Your task to perform on an android device: Open calendar and show me the first week of next month Image 0: 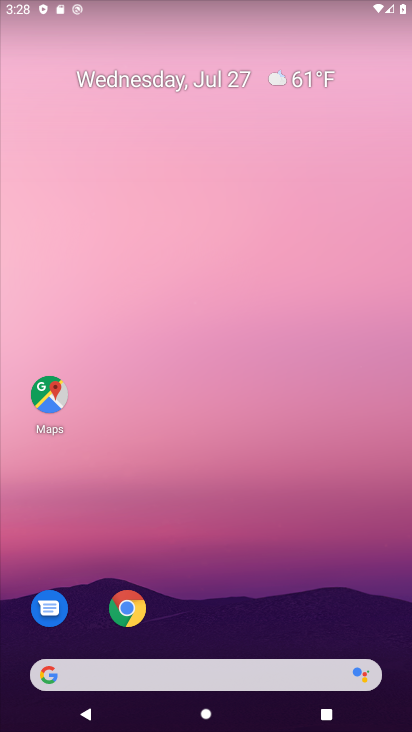
Step 0: drag from (235, 726) to (235, 233)
Your task to perform on an android device: Open calendar and show me the first week of next month Image 1: 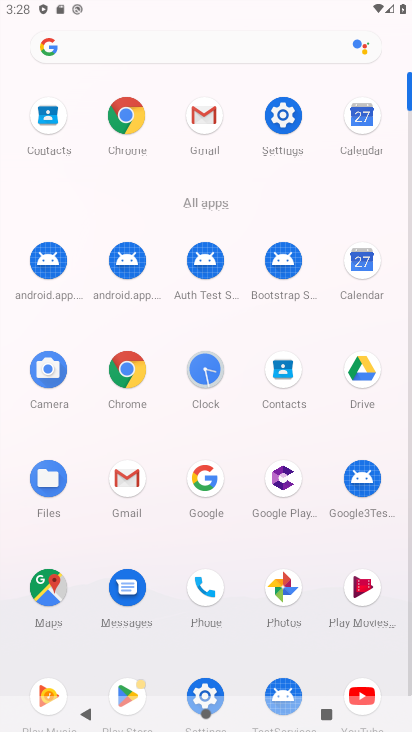
Step 1: click (355, 266)
Your task to perform on an android device: Open calendar and show me the first week of next month Image 2: 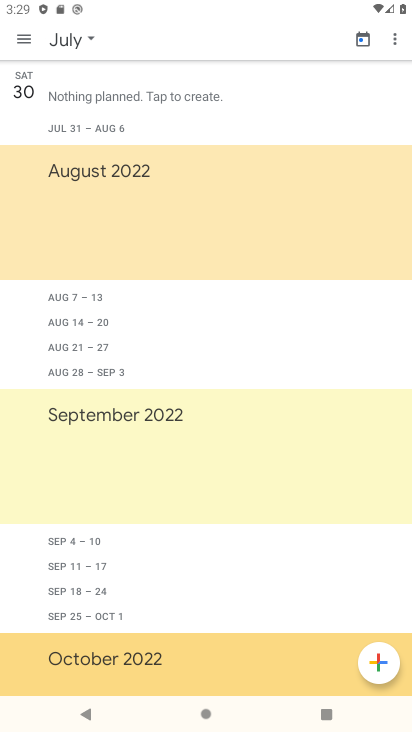
Step 2: click (93, 38)
Your task to perform on an android device: Open calendar and show me the first week of next month Image 3: 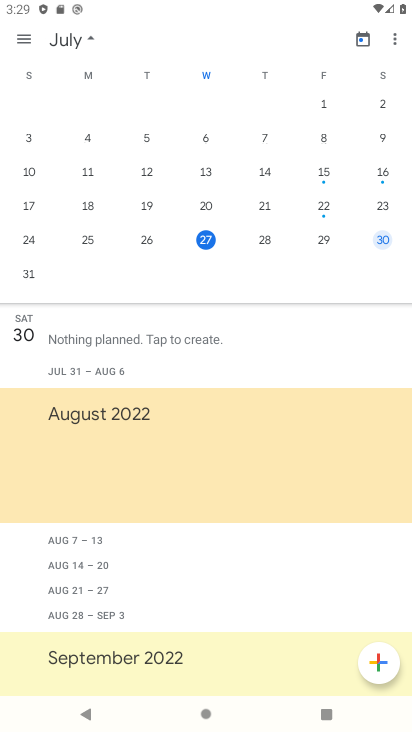
Step 3: drag from (341, 203) to (109, 203)
Your task to perform on an android device: Open calendar and show me the first week of next month Image 4: 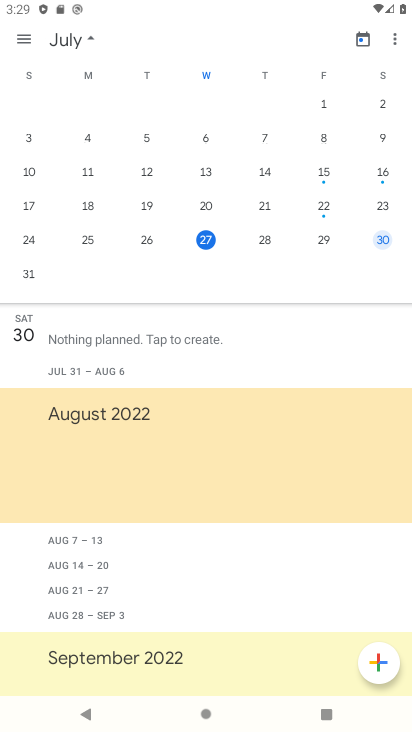
Step 4: drag from (365, 192) to (39, 192)
Your task to perform on an android device: Open calendar and show me the first week of next month Image 5: 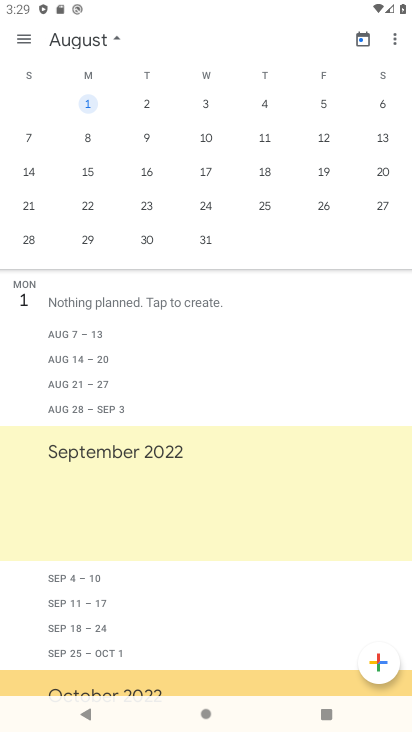
Step 5: click (92, 103)
Your task to perform on an android device: Open calendar and show me the first week of next month Image 6: 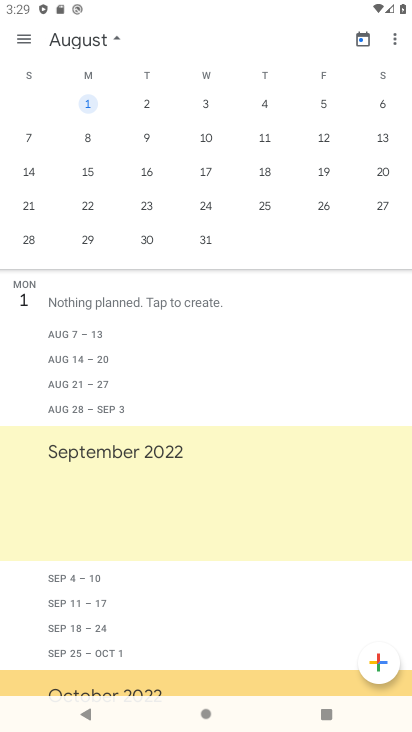
Step 6: click (20, 40)
Your task to perform on an android device: Open calendar and show me the first week of next month Image 7: 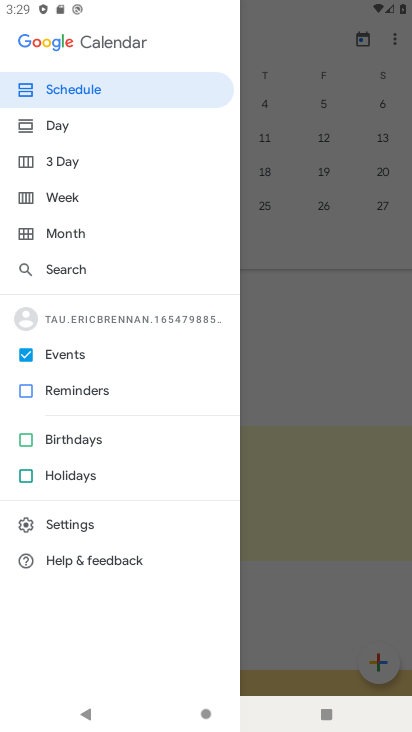
Step 7: click (69, 194)
Your task to perform on an android device: Open calendar and show me the first week of next month Image 8: 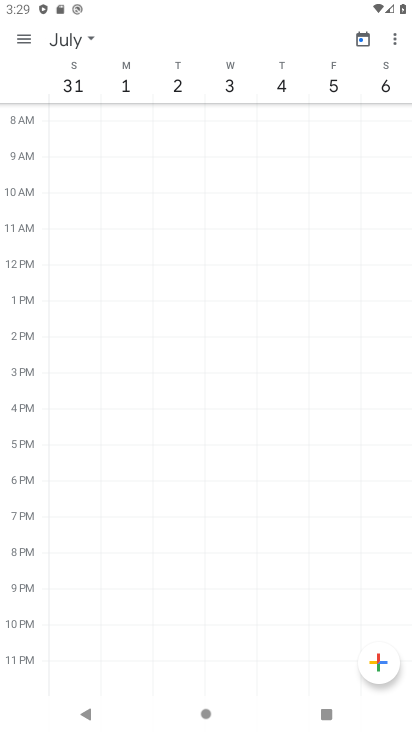
Step 8: task complete